Your task to perform on an android device: Show the shopping cart on walmart. Image 0: 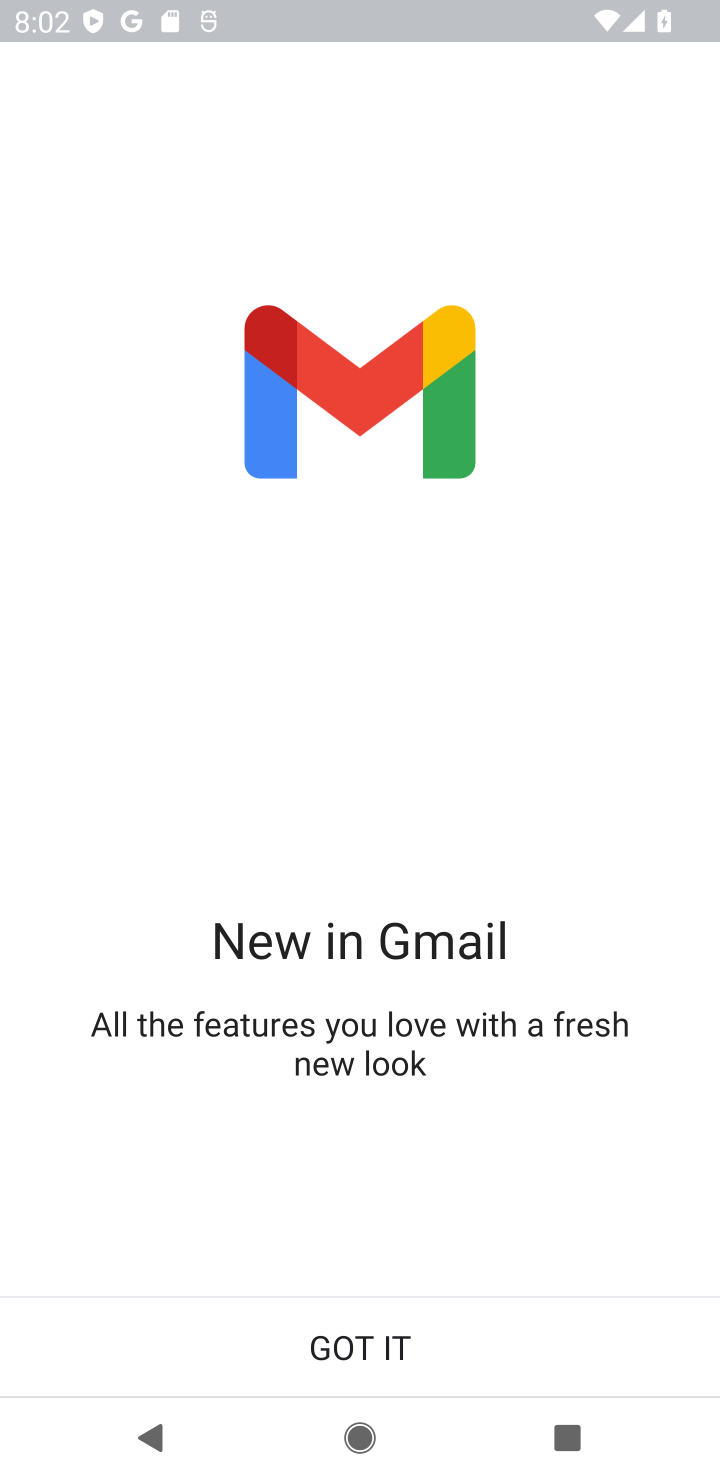
Step 0: press home button
Your task to perform on an android device: Show the shopping cart on walmart. Image 1: 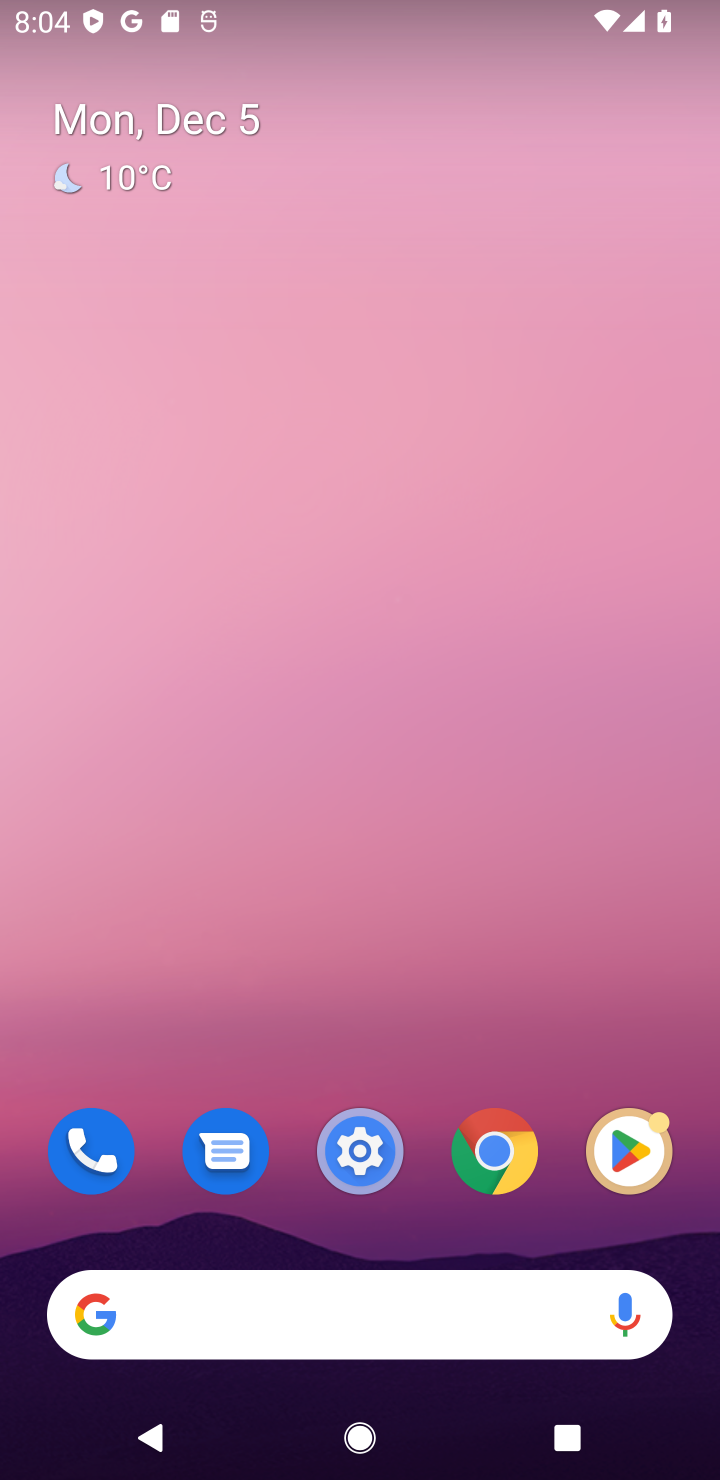
Step 1: click (215, 1313)
Your task to perform on an android device: Show the shopping cart on walmart. Image 2: 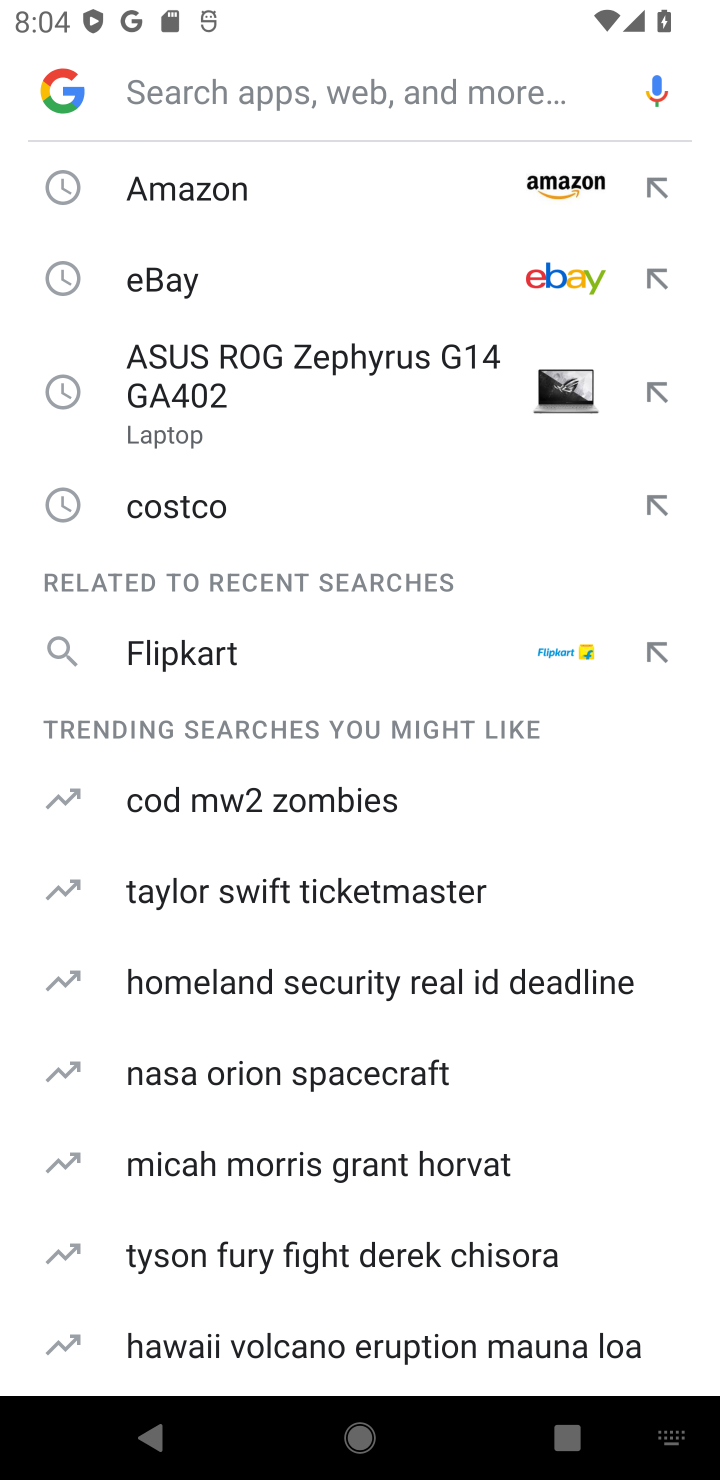
Step 2: type "walmart"
Your task to perform on an android device: Show the shopping cart on walmart. Image 3: 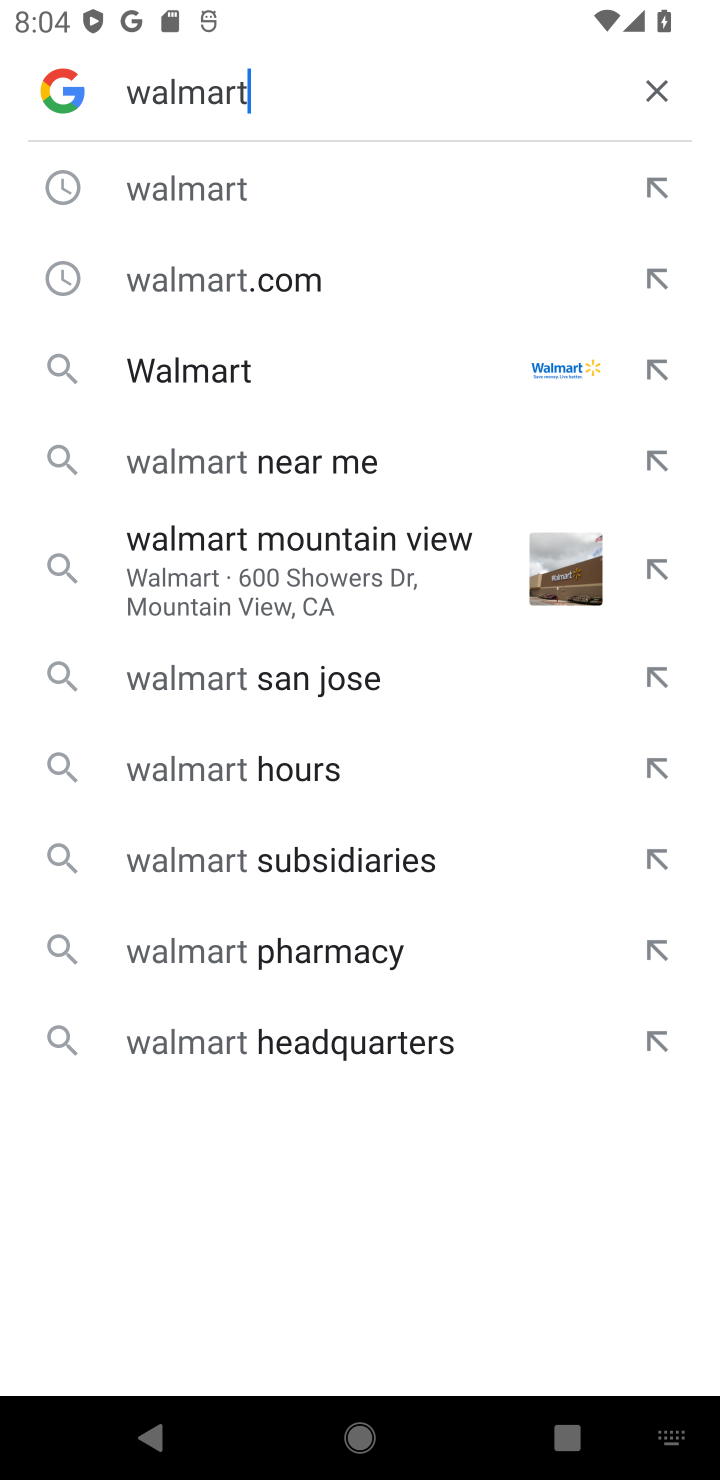
Step 3: click (365, 160)
Your task to perform on an android device: Show the shopping cart on walmart. Image 4: 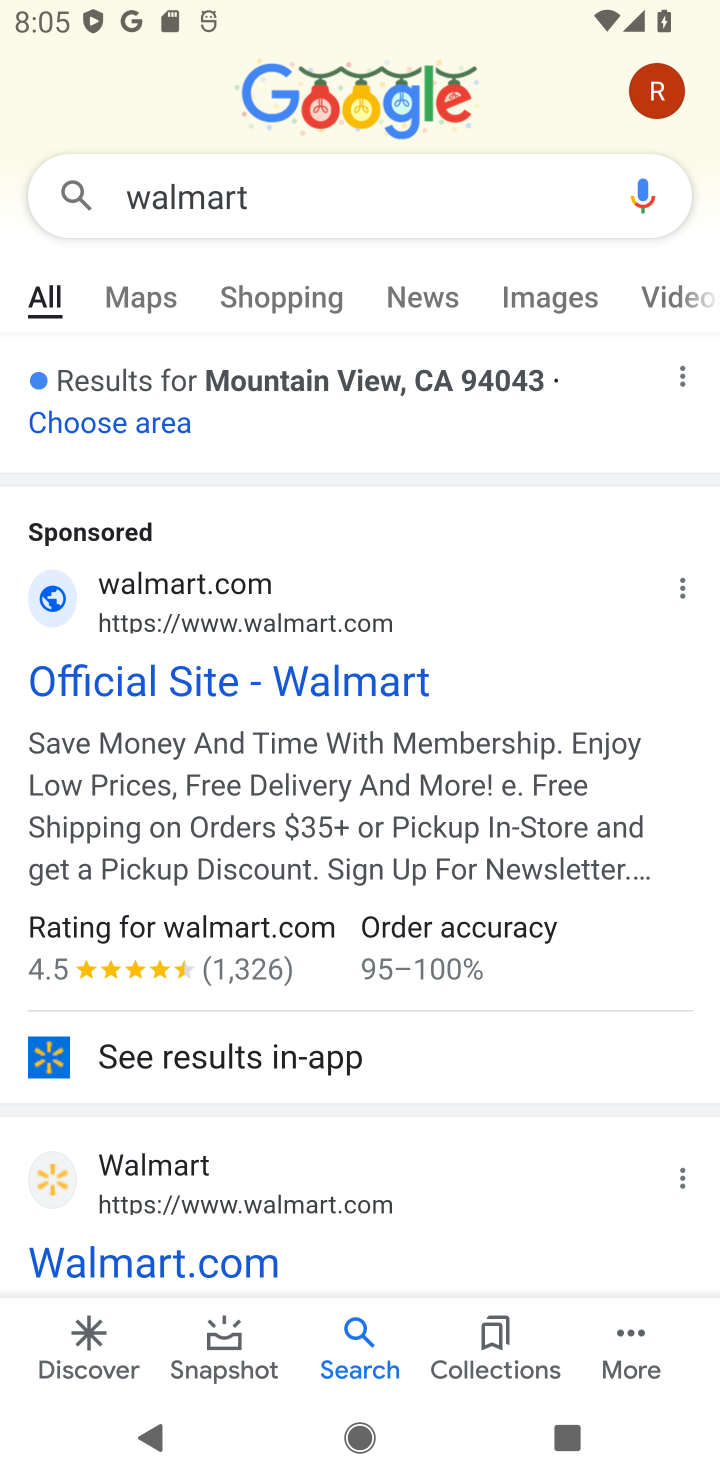
Step 4: click (305, 613)
Your task to perform on an android device: Show the shopping cart on walmart. Image 5: 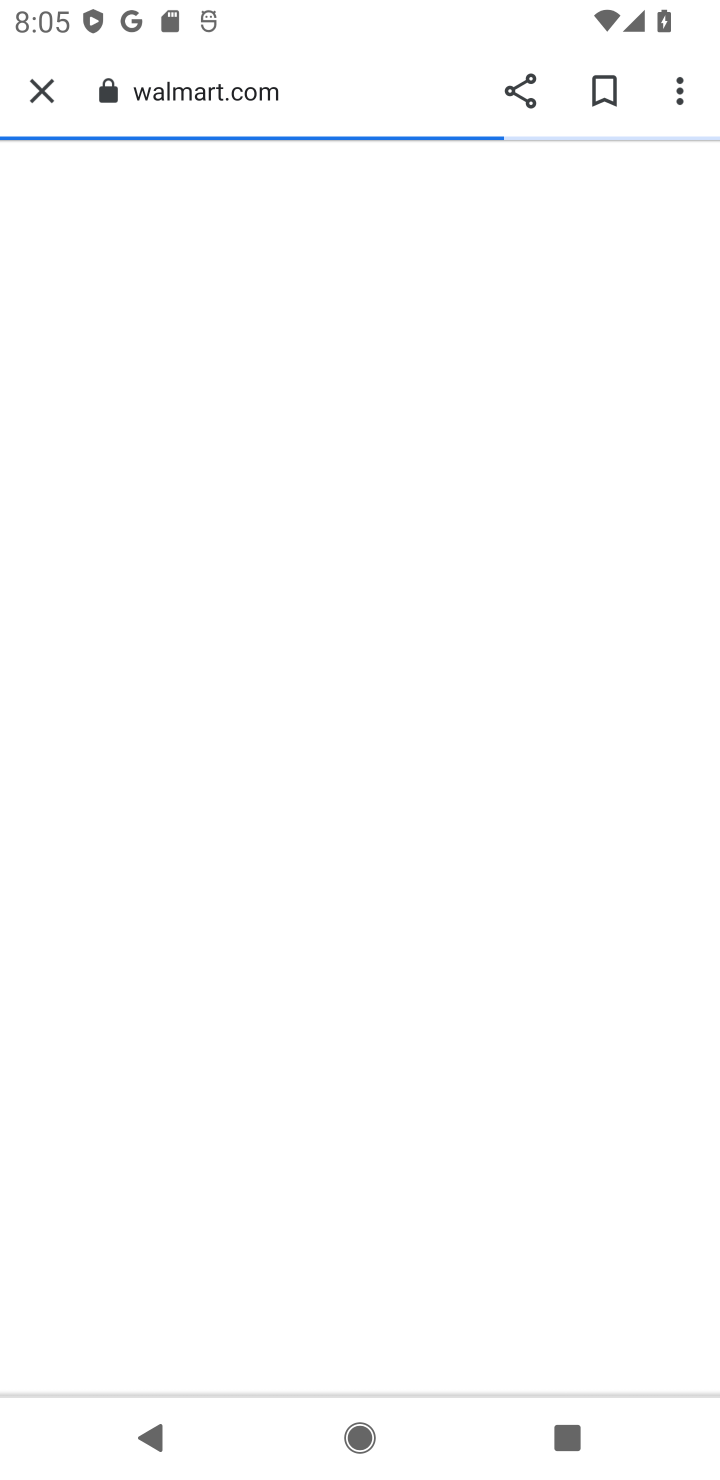
Step 5: click (237, 704)
Your task to perform on an android device: Show the shopping cart on walmart. Image 6: 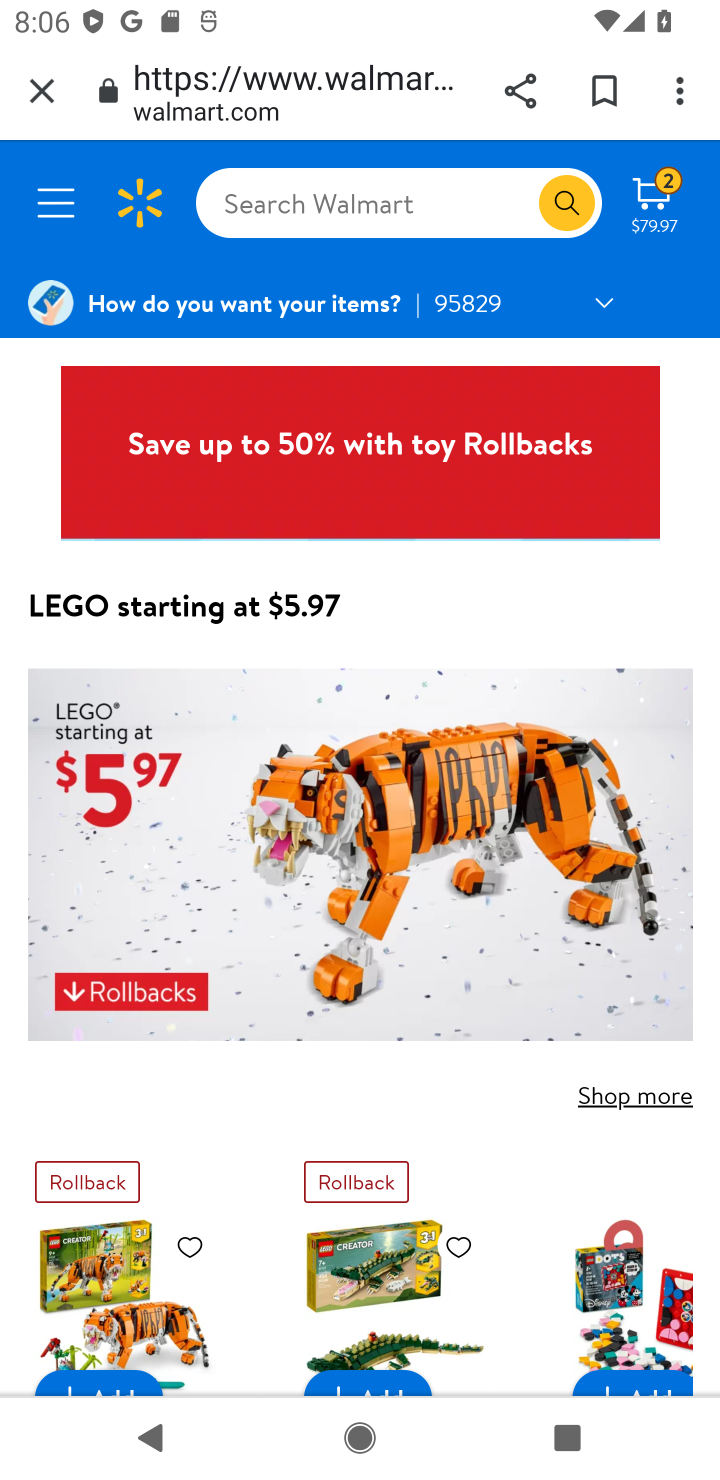
Step 6: task complete